Your task to perform on an android device: Show me popular videos on Youtube Image 0: 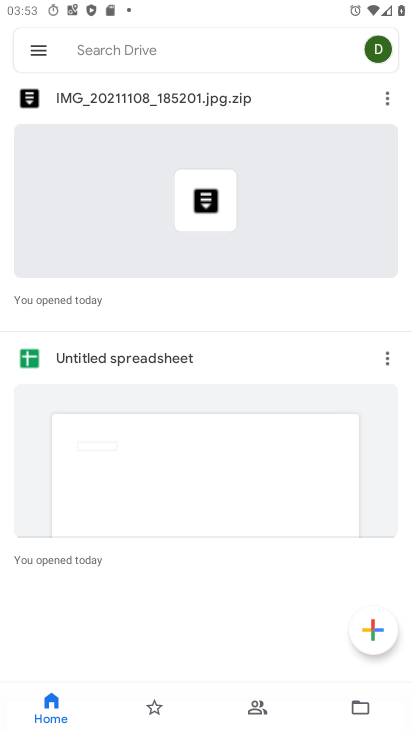
Step 0: press home button
Your task to perform on an android device: Show me popular videos on Youtube Image 1: 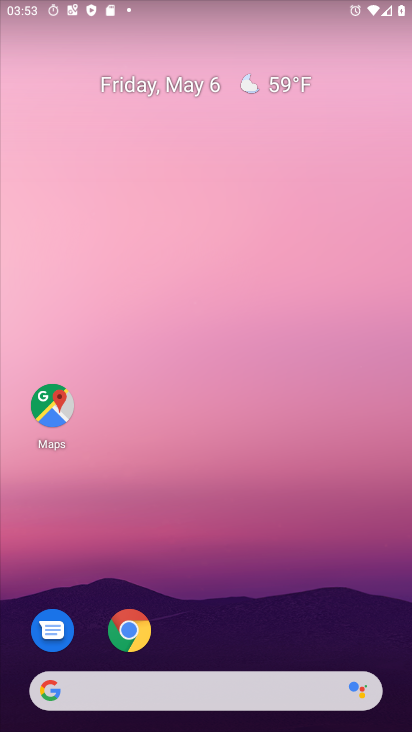
Step 1: drag from (207, 648) to (207, 259)
Your task to perform on an android device: Show me popular videos on Youtube Image 2: 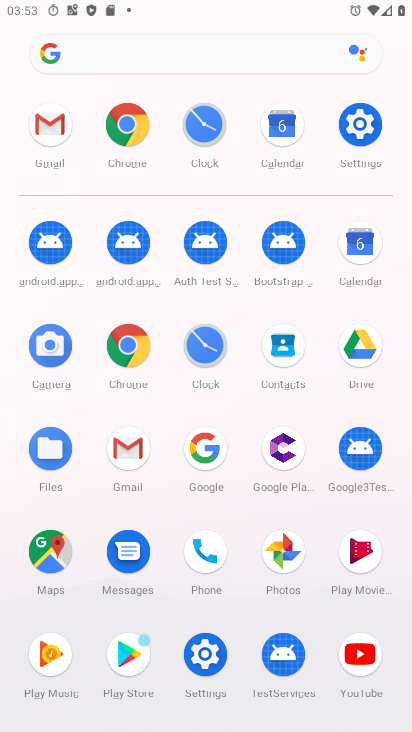
Step 2: click (344, 646)
Your task to perform on an android device: Show me popular videos on Youtube Image 3: 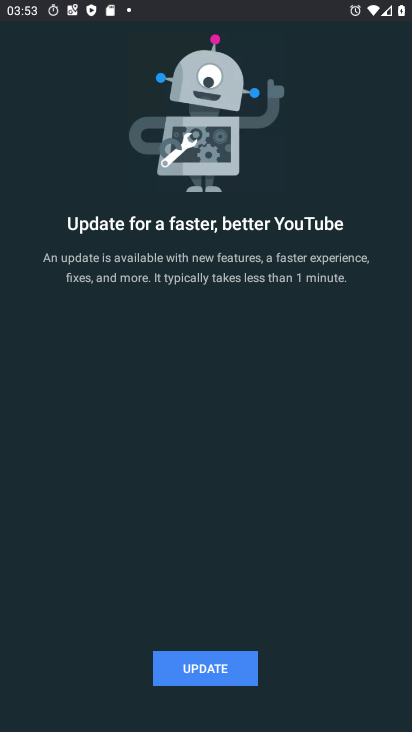
Step 3: click (170, 666)
Your task to perform on an android device: Show me popular videos on Youtube Image 4: 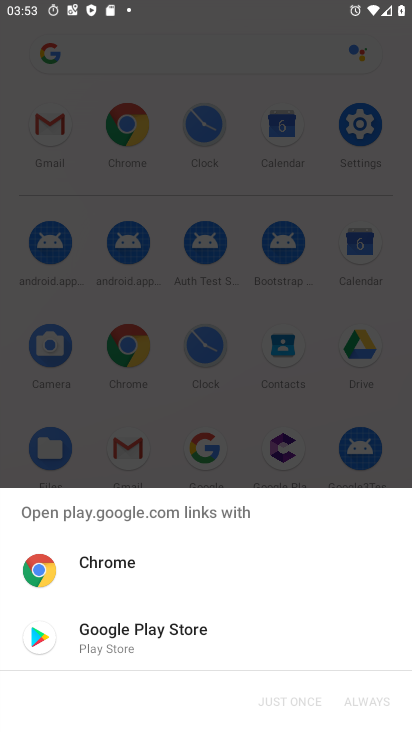
Step 4: click (127, 634)
Your task to perform on an android device: Show me popular videos on Youtube Image 5: 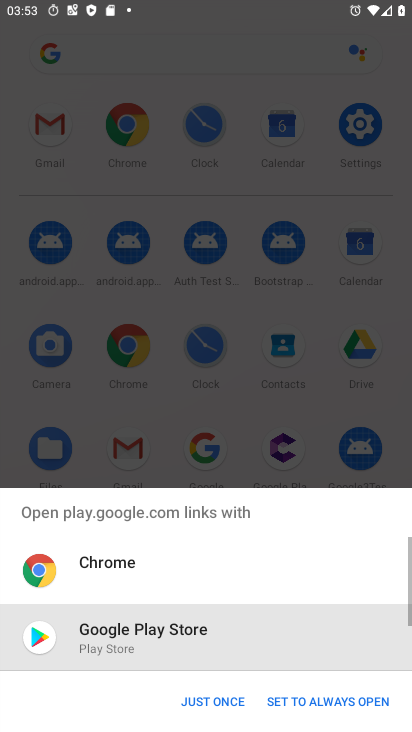
Step 5: click (213, 695)
Your task to perform on an android device: Show me popular videos on Youtube Image 6: 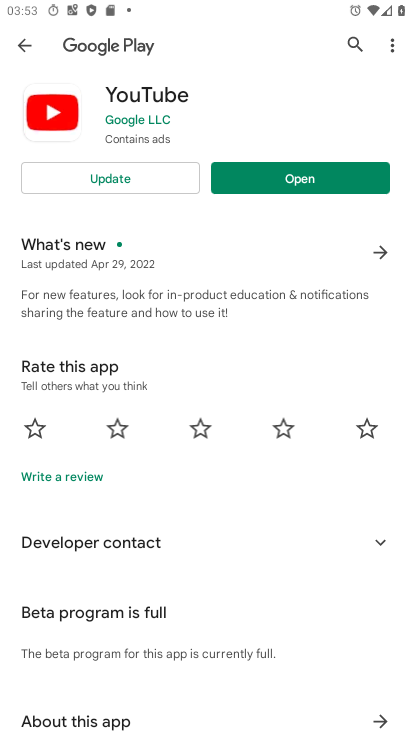
Step 6: click (141, 177)
Your task to perform on an android device: Show me popular videos on Youtube Image 7: 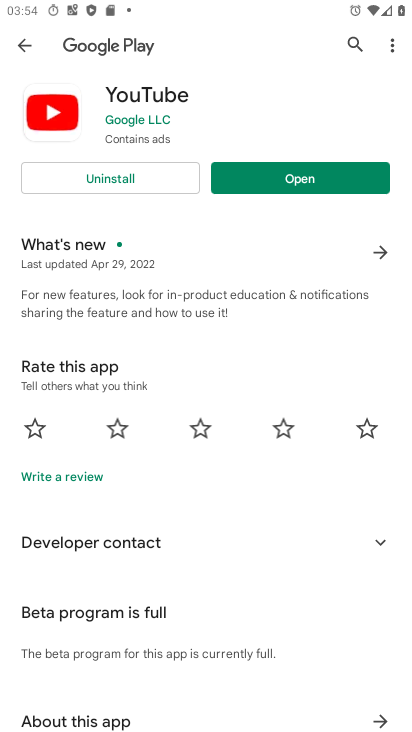
Step 7: click (247, 175)
Your task to perform on an android device: Show me popular videos on Youtube Image 8: 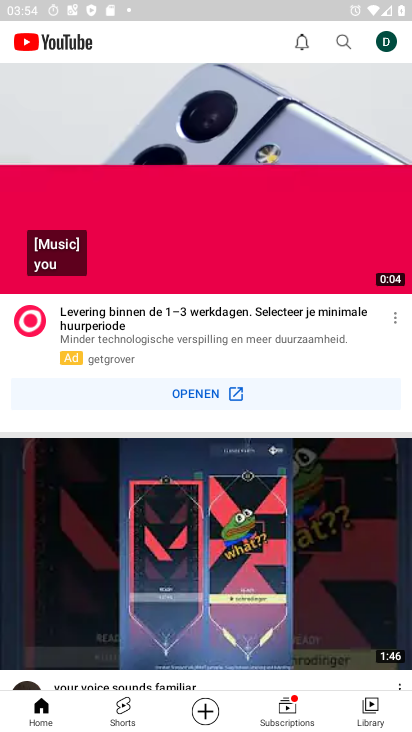
Step 8: click (335, 41)
Your task to perform on an android device: Show me popular videos on Youtube Image 9: 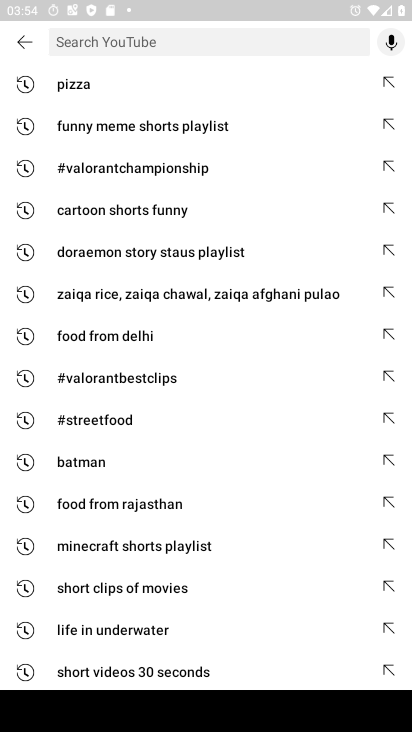
Step 9: type "popular videos"
Your task to perform on an android device: Show me popular videos on Youtube Image 10: 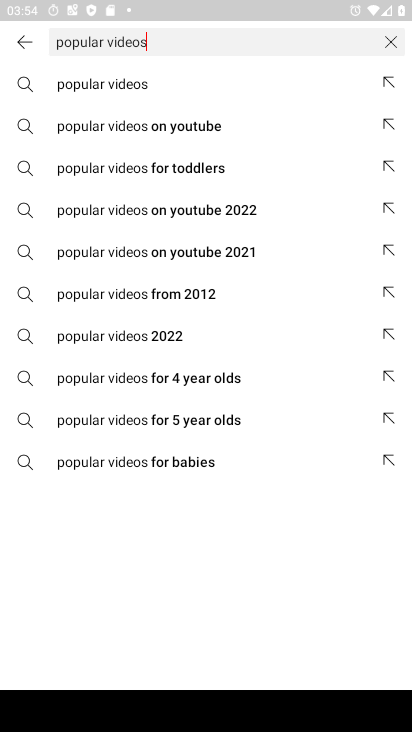
Step 10: click (94, 90)
Your task to perform on an android device: Show me popular videos on Youtube Image 11: 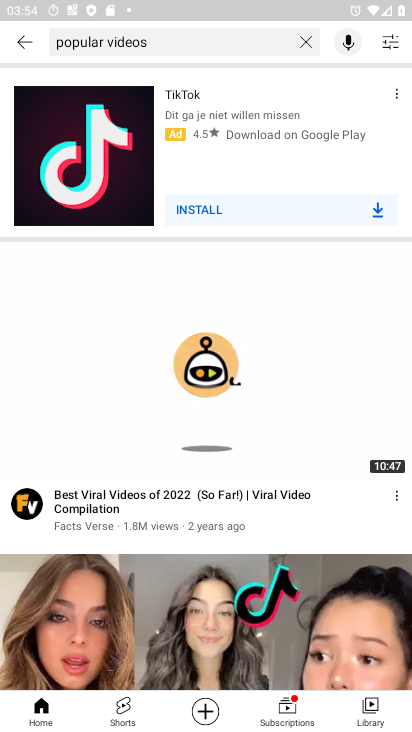
Step 11: task complete